Your task to perform on an android device: allow cookies in the chrome app Image 0: 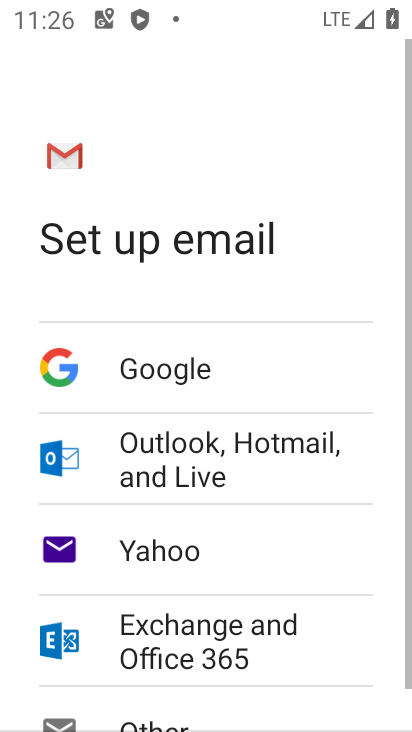
Step 0: press home button
Your task to perform on an android device: allow cookies in the chrome app Image 1: 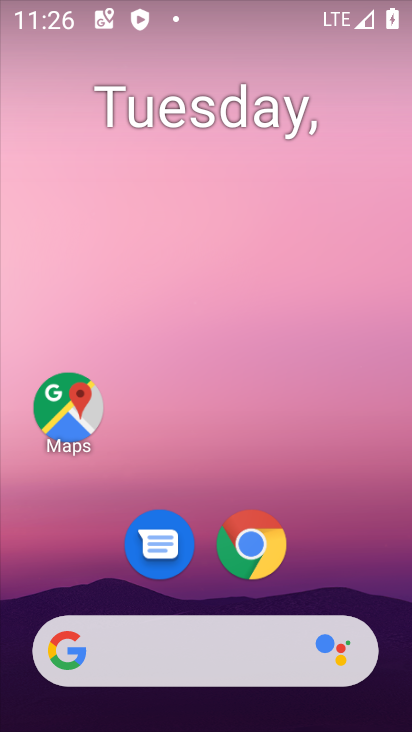
Step 1: drag from (388, 624) to (232, 86)
Your task to perform on an android device: allow cookies in the chrome app Image 2: 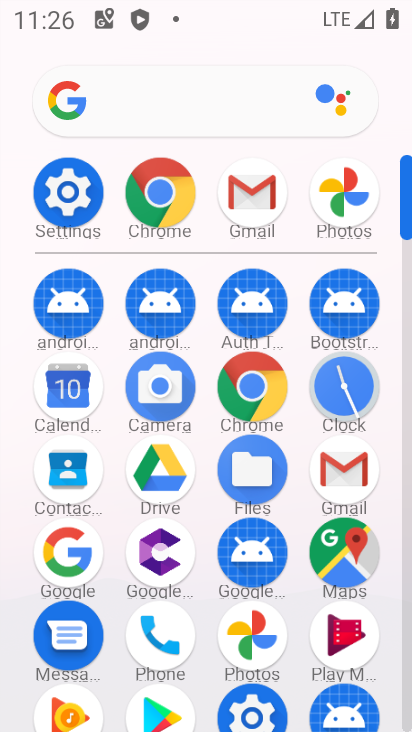
Step 2: click (142, 197)
Your task to perform on an android device: allow cookies in the chrome app Image 3: 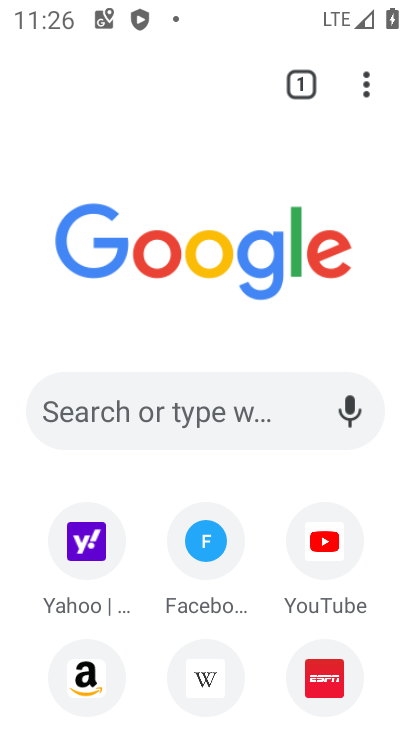
Step 3: click (362, 81)
Your task to perform on an android device: allow cookies in the chrome app Image 4: 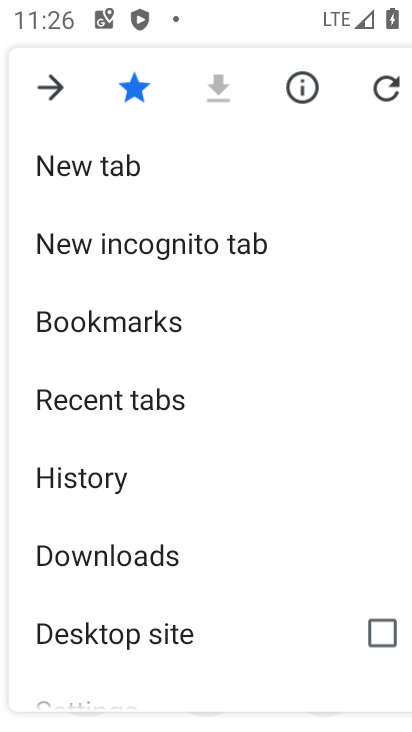
Step 4: drag from (138, 624) to (169, 243)
Your task to perform on an android device: allow cookies in the chrome app Image 5: 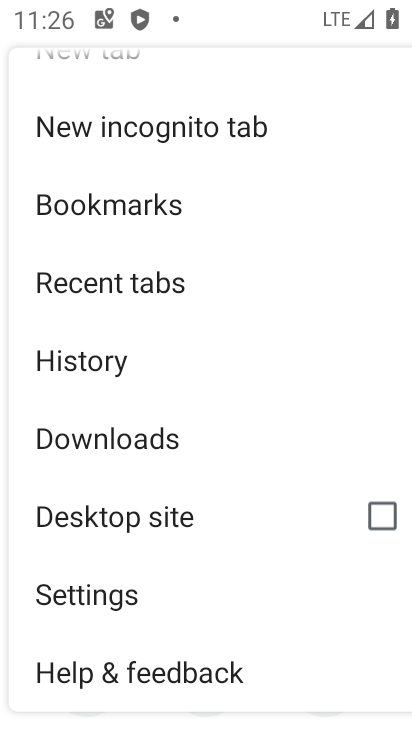
Step 5: click (132, 586)
Your task to perform on an android device: allow cookies in the chrome app Image 6: 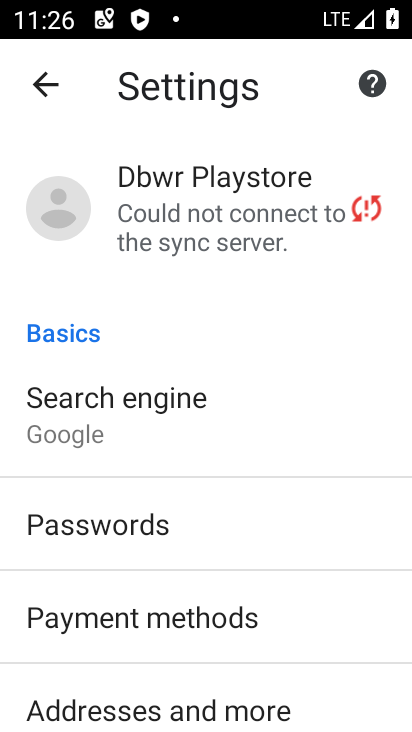
Step 6: press back button
Your task to perform on an android device: allow cookies in the chrome app Image 7: 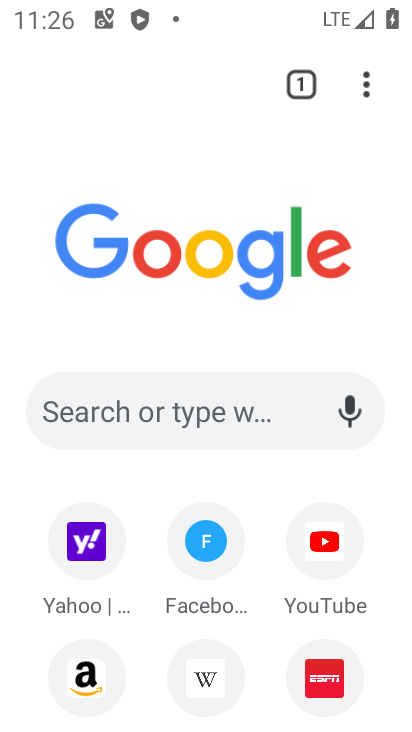
Step 7: click (359, 82)
Your task to perform on an android device: allow cookies in the chrome app Image 8: 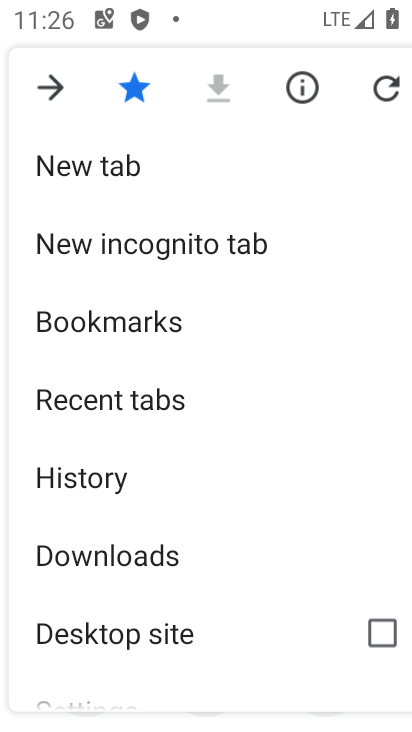
Step 8: click (153, 469)
Your task to perform on an android device: allow cookies in the chrome app Image 9: 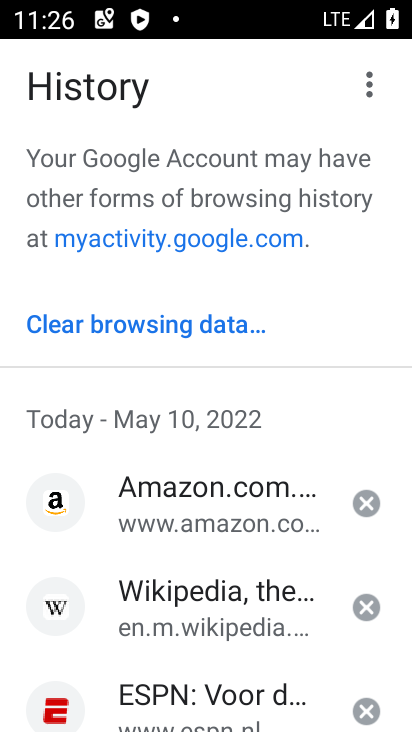
Step 9: click (77, 337)
Your task to perform on an android device: allow cookies in the chrome app Image 10: 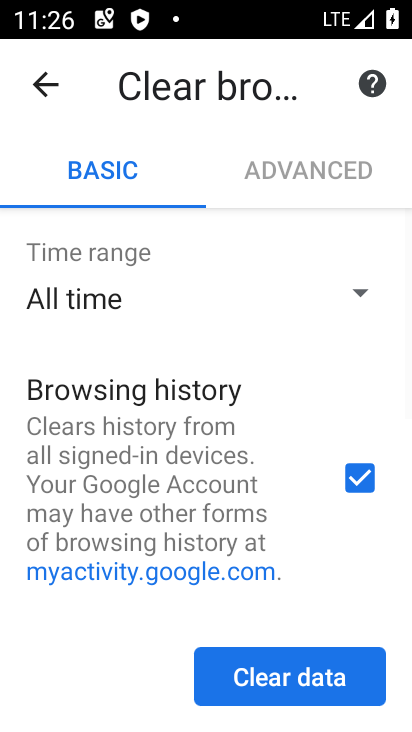
Step 10: task complete